Your task to perform on an android device: Go to eBay Image 0: 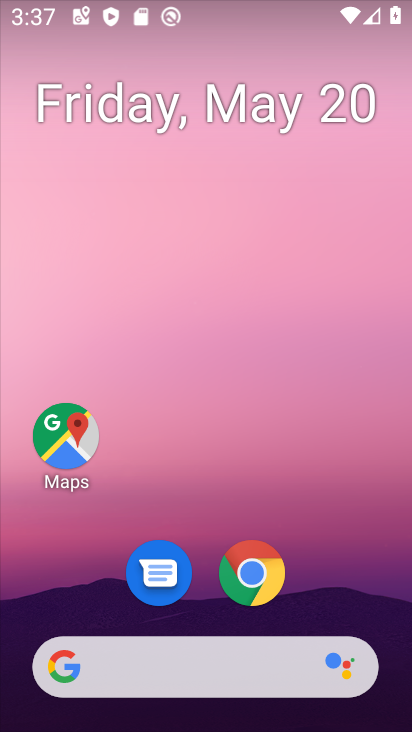
Step 0: click (252, 577)
Your task to perform on an android device: Go to eBay Image 1: 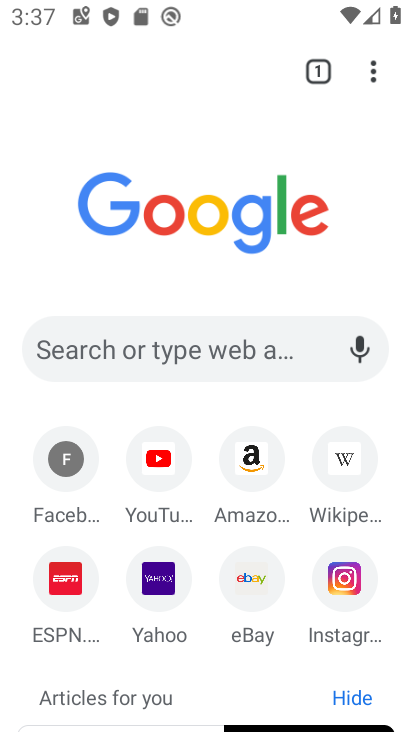
Step 1: click (160, 343)
Your task to perform on an android device: Go to eBay Image 2: 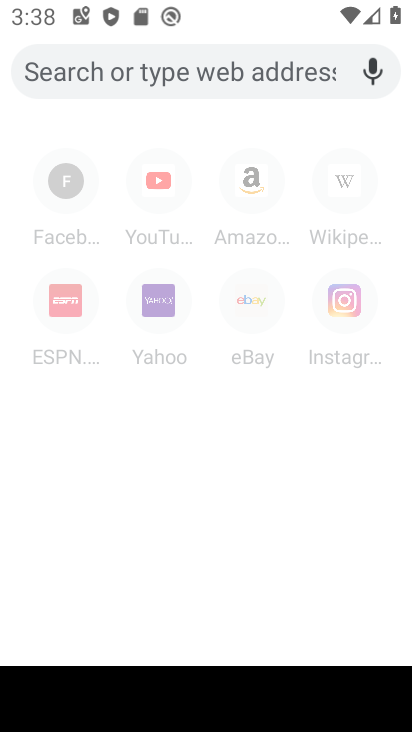
Step 2: type "ebay"
Your task to perform on an android device: Go to eBay Image 3: 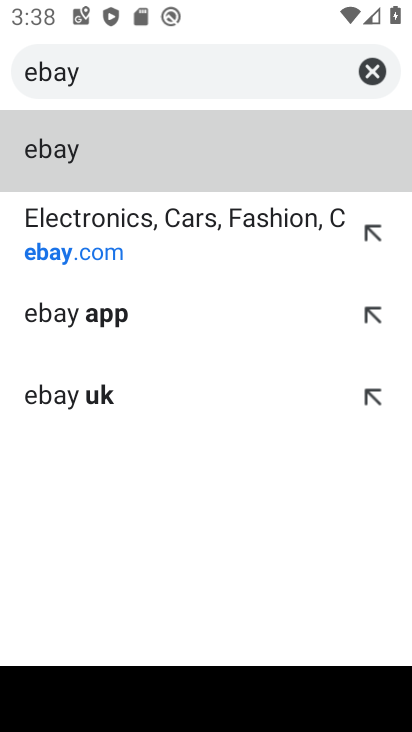
Step 3: click (97, 222)
Your task to perform on an android device: Go to eBay Image 4: 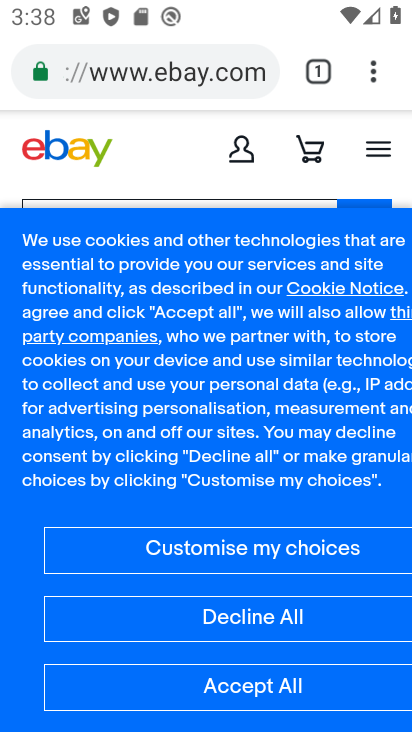
Step 4: task complete